Your task to perform on an android device: turn on bluetooth scan Image 0: 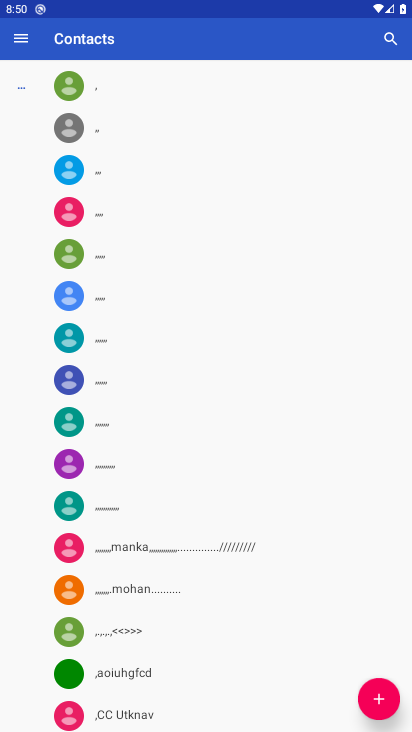
Step 0: press home button
Your task to perform on an android device: turn on bluetooth scan Image 1: 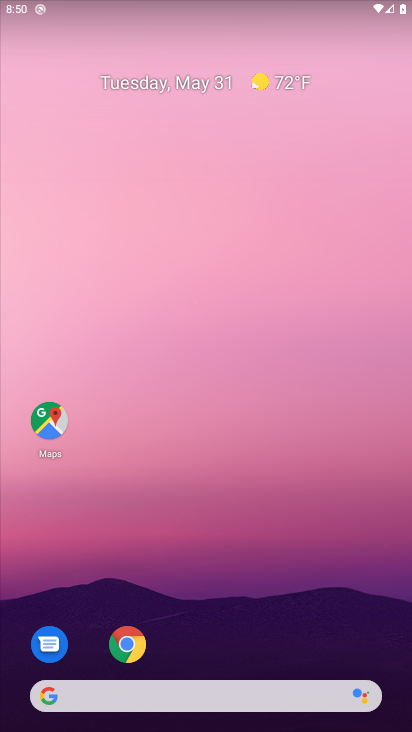
Step 1: drag from (254, 637) to (250, 82)
Your task to perform on an android device: turn on bluetooth scan Image 2: 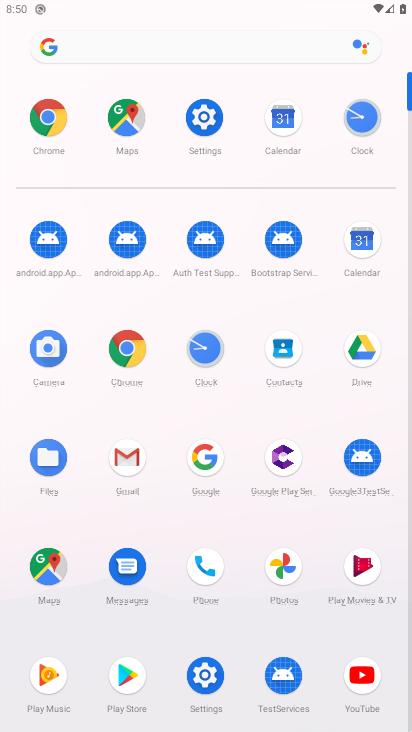
Step 2: click (206, 112)
Your task to perform on an android device: turn on bluetooth scan Image 3: 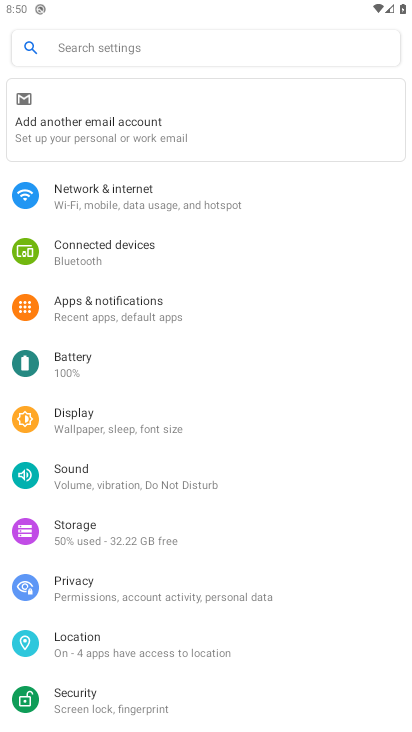
Step 3: click (124, 638)
Your task to perform on an android device: turn on bluetooth scan Image 4: 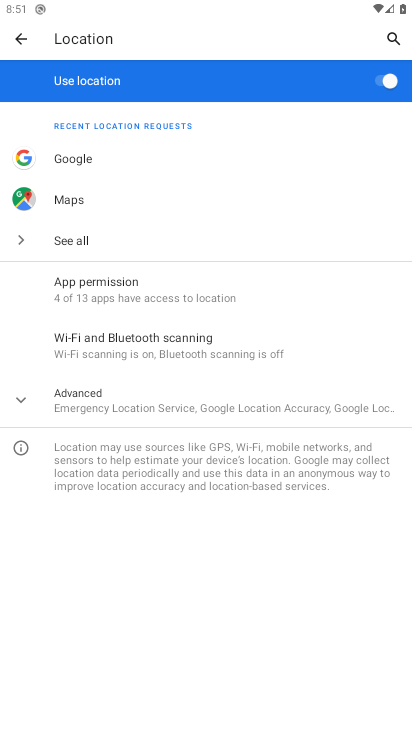
Step 4: click (164, 338)
Your task to perform on an android device: turn on bluetooth scan Image 5: 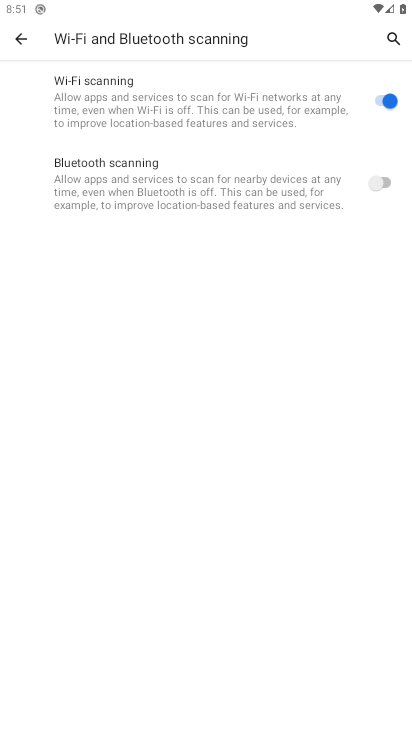
Step 5: click (383, 181)
Your task to perform on an android device: turn on bluetooth scan Image 6: 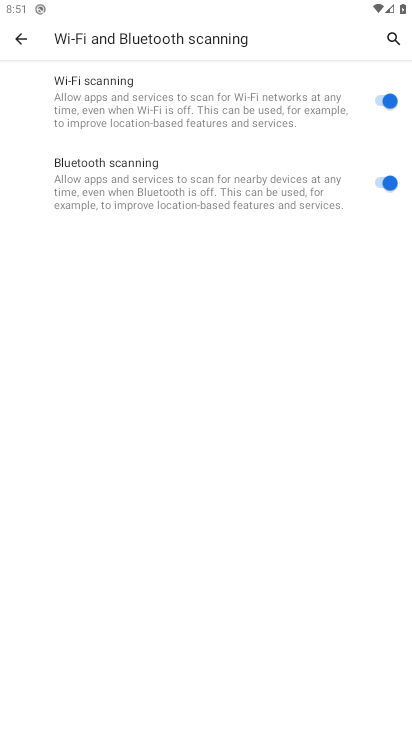
Step 6: task complete